Your task to perform on an android device: Check the weather Image 0: 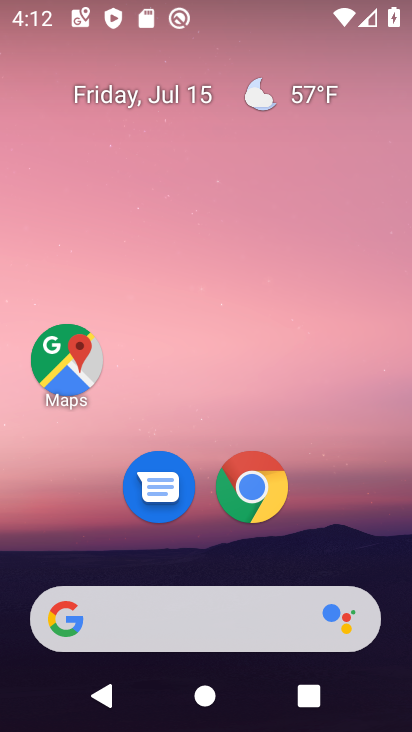
Step 0: drag from (154, 623) to (187, 222)
Your task to perform on an android device: Check the weather Image 1: 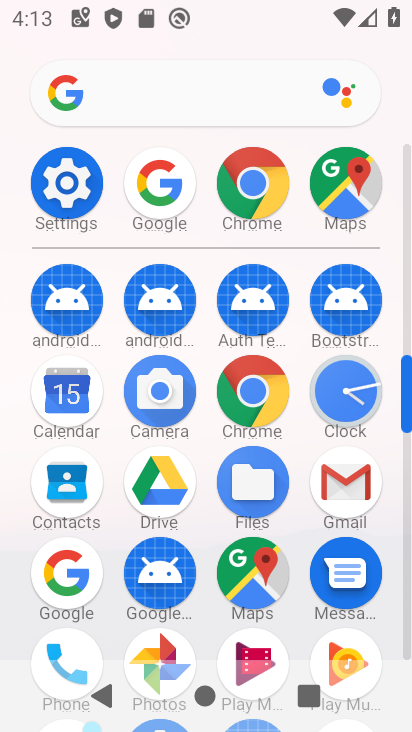
Step 1: click (84, 583)
Your task to perform on an android device: Check the weather Image 2: 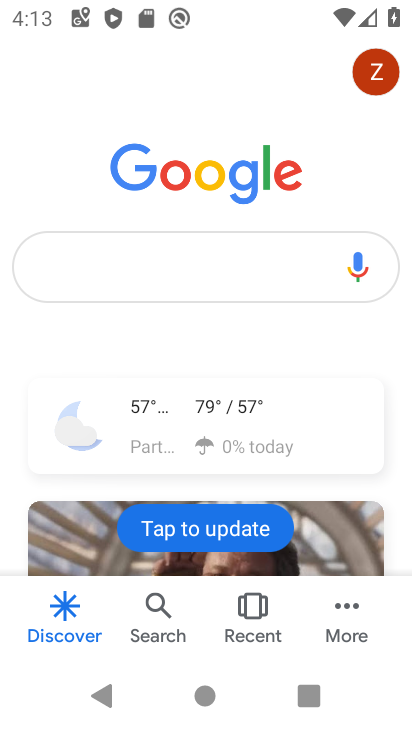
Step 2: click (229, 281)
Your task to perform on an android device: Check the weather Image 3: 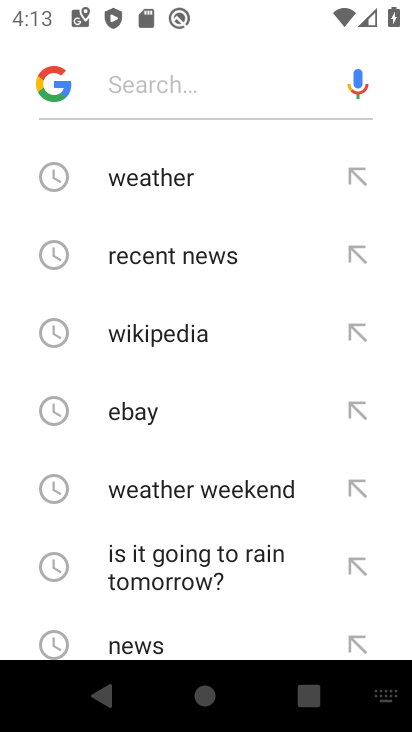
Step 3: click (206, 176)
Your task to perform on an android device: Check the weather Image 4: 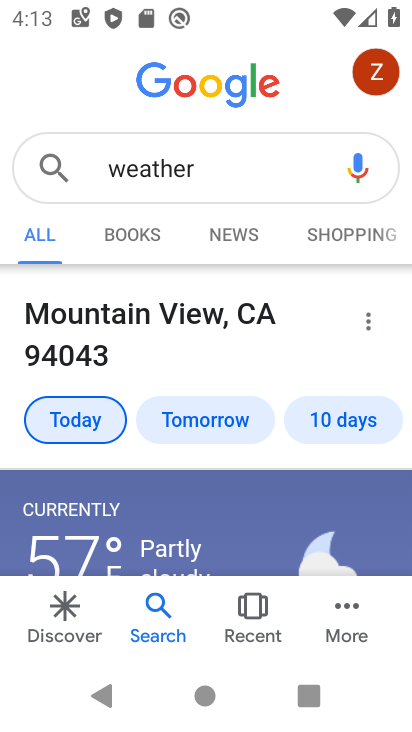
Step 4: task complete